Your task to perform on an android device: When is my next meeting? Image 0: 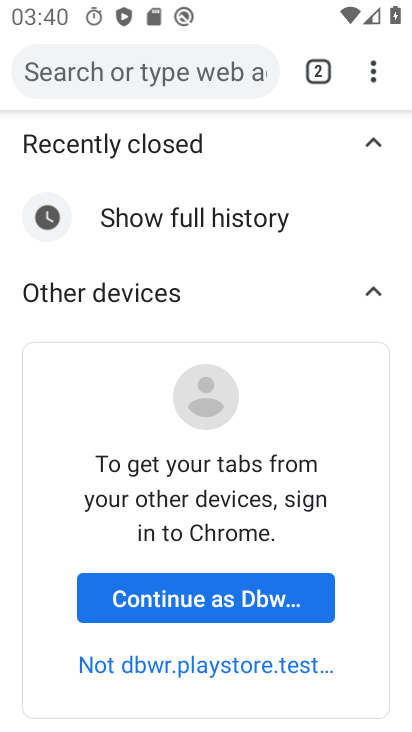
Step 0: press home button
Your task to perform on an android device: When is my next meeting? Image 1: 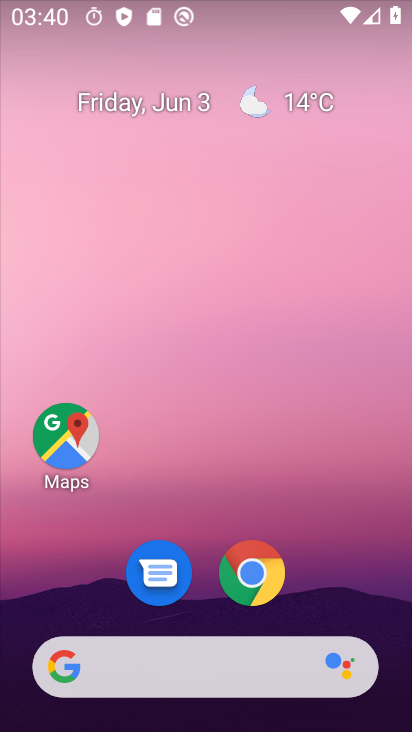
Step 1: drag from (147, 686) to (195, 9)
Your task to perform on an android device: When is my next meeting? Image 2: 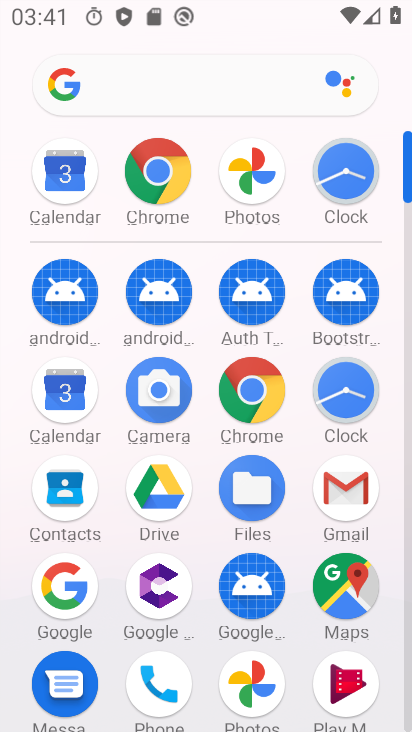
Step 2: click (57, 409)
Your task to perform on an android device: When is my next meeting? Image 3: 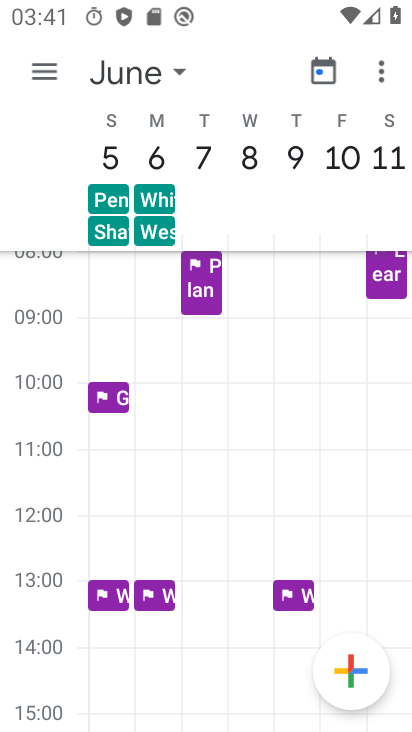
Step 3: click (174, 64)
Your task to perform on an android device: When is my next meeting? Image 4: 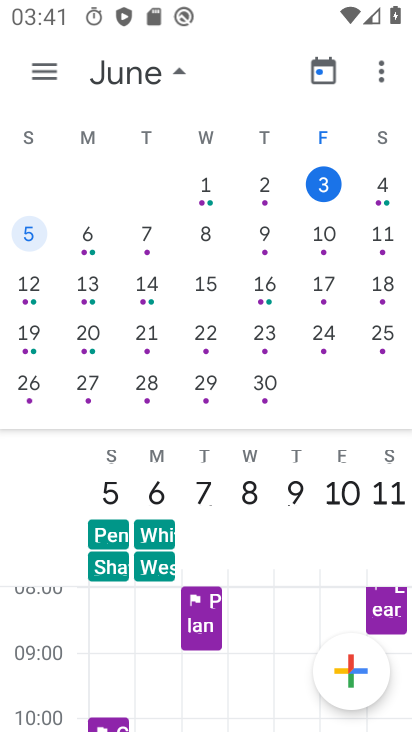
Step 4: click (371, 181)
Your task to perform on an android device: When is my next meeting? Image 5: 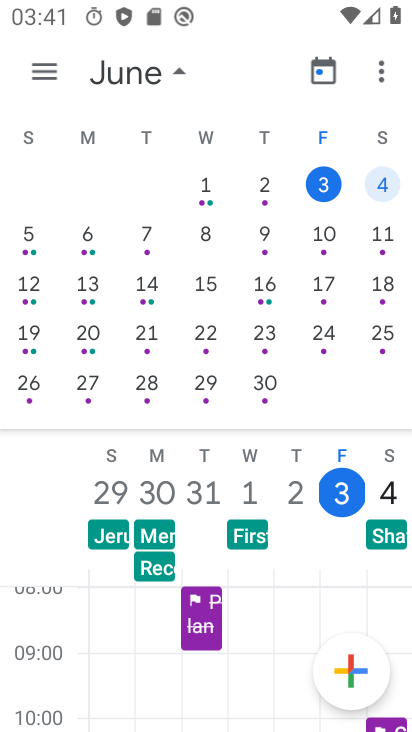
Step 5: task complete